Your task to perform on an android device: set the timer Image 0: 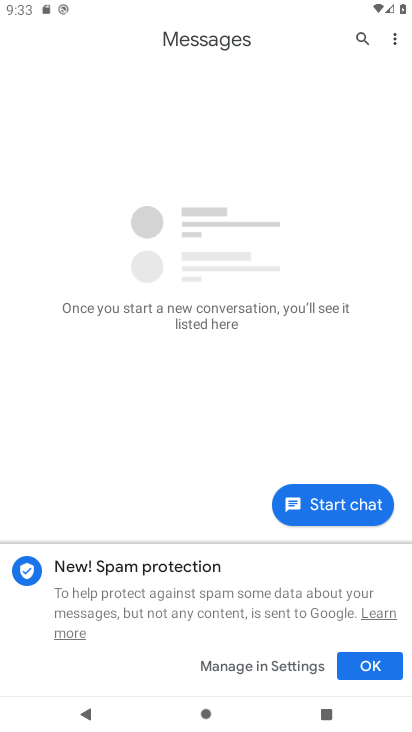
Step 0: press home button
Your task to perform on an android device: set the timer Image 1: 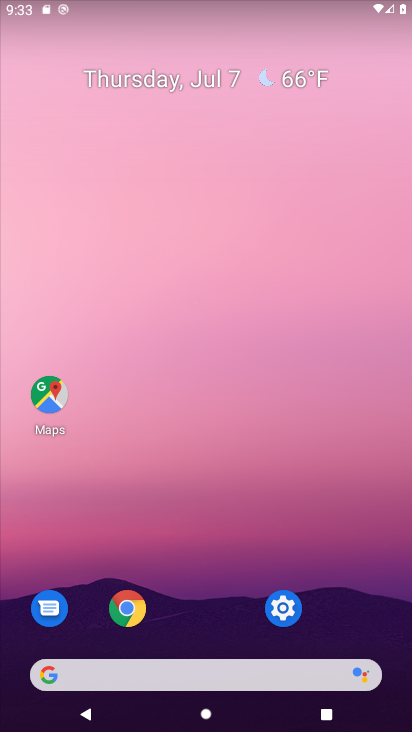
Step 1: drag from (246, 678) to (251, 152)
Your task to perform on an android device: set the timer Image 2: 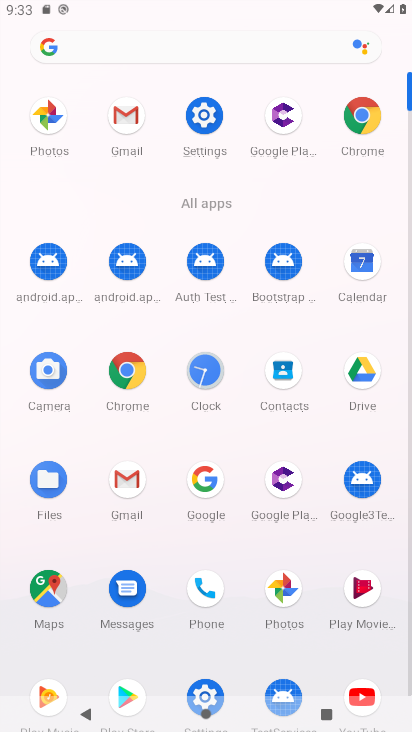
Step 2: click (214, 372)
Your task to perform on an android device: set the timer Image 3: 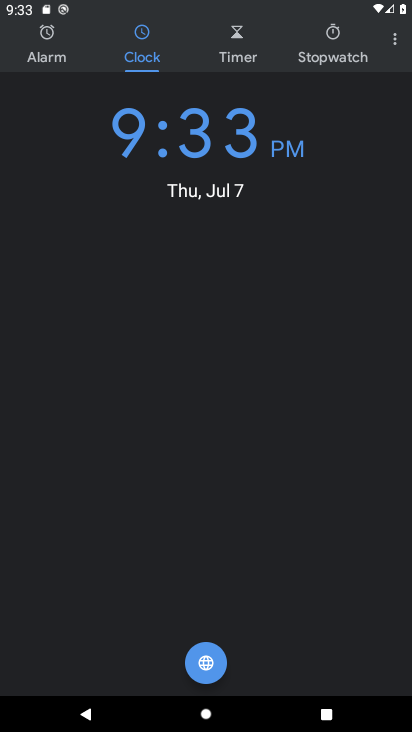
Step 3: click (393, 49)
Your task to perform on an android device: set the timer Image 4: 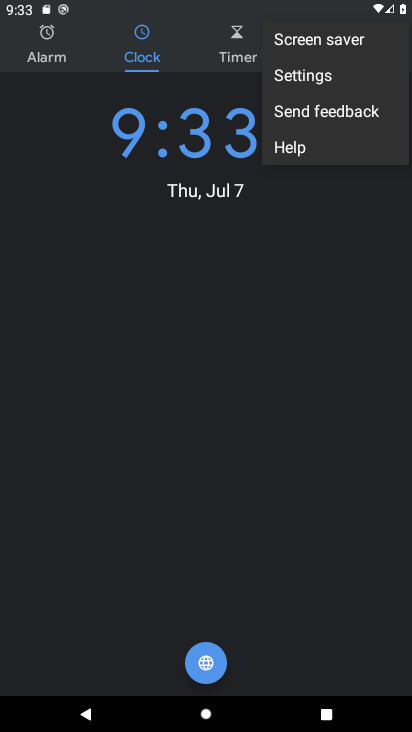
Step 4: click (333, 78)
Your task to perform on an android device: set the timer Image 5: 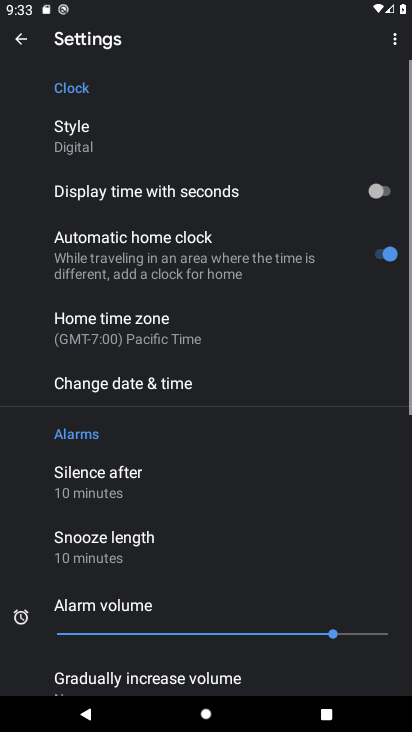
Step 5: click (26, 50)
Your task to perform on an android device: set the timer Image 6: 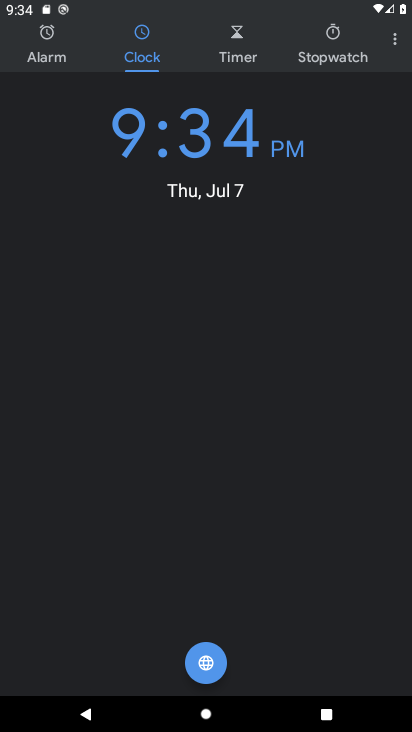
Step 6: click (242, 61)
Your task to perform on an android device: set the timer Image 7: 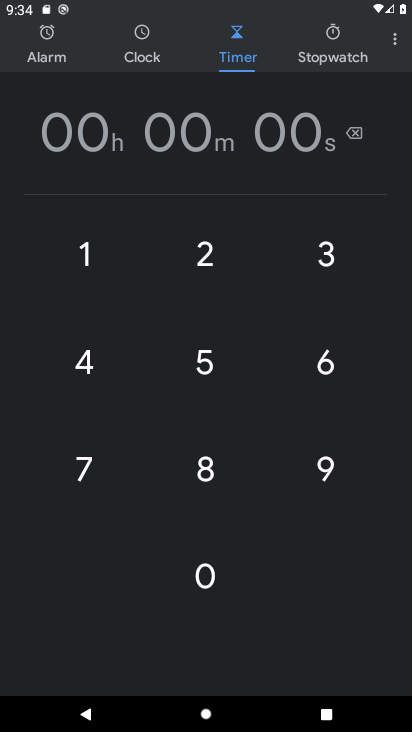
Step 7: click (233, 445)
Your task to perform on an android device: set the timer Image 8: 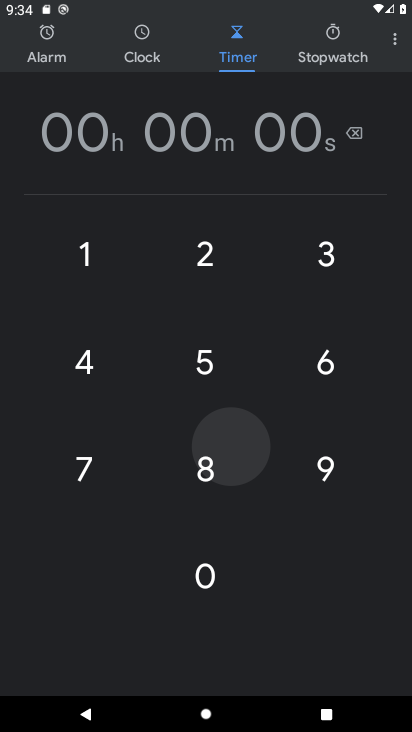
Step 8: click (182, 332)
Your task to perform on an android device: set the timer Image 9: 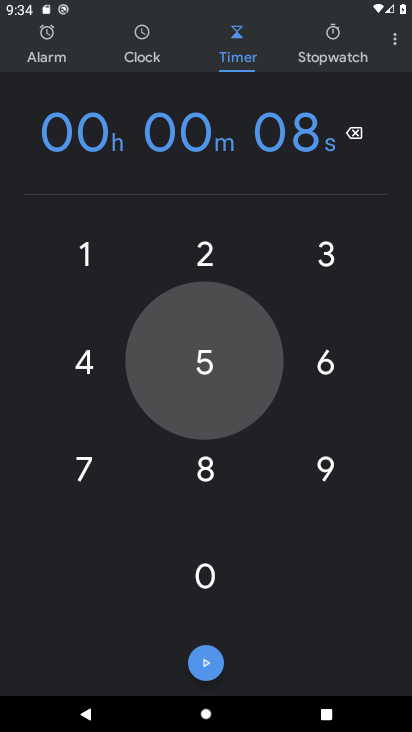
Step 9: click (73, 368)
Your task to perform on an android device: set the timer Image 10: 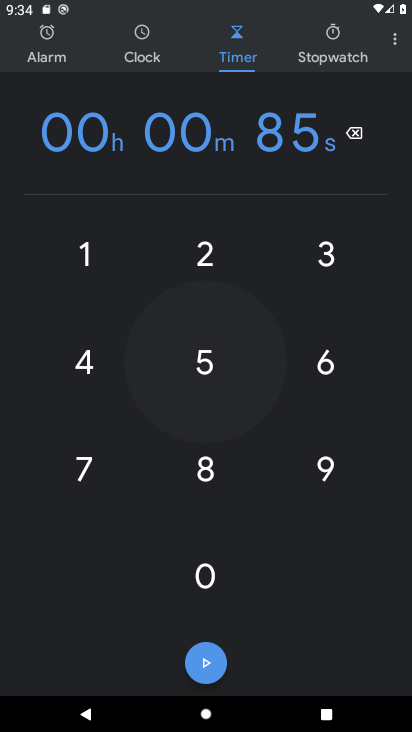
Step 10: click (162, 257)
Your task to perform on an android device: set the timer Image 11: 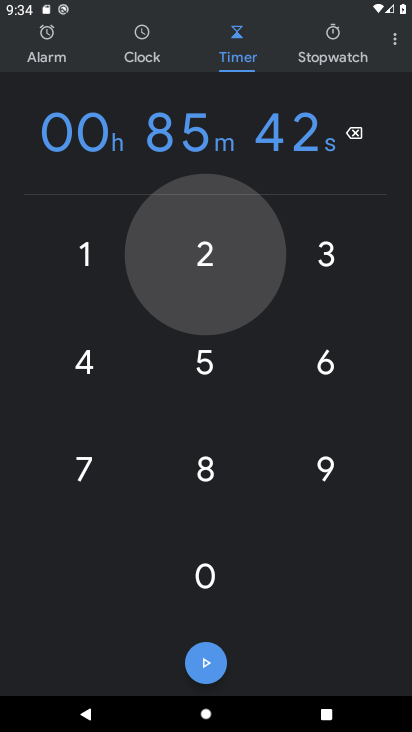
Step 11: click (199, 389)
Your task to perform on an android device: set the timer Image 12: 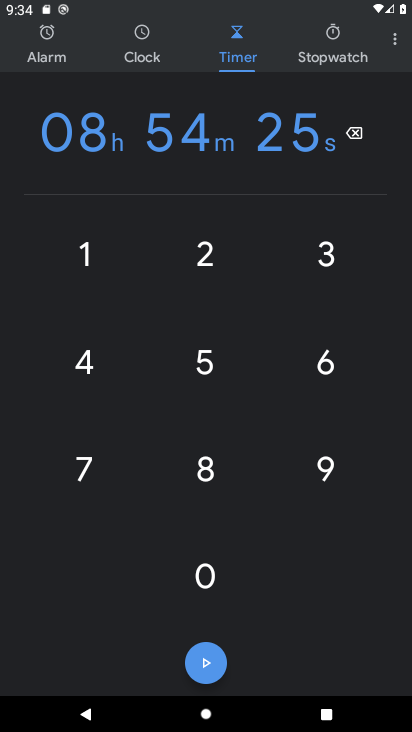
Step 12: task complete